Your task to perform on an android device: Search for seafood restaurants on Google Maps Image 0: 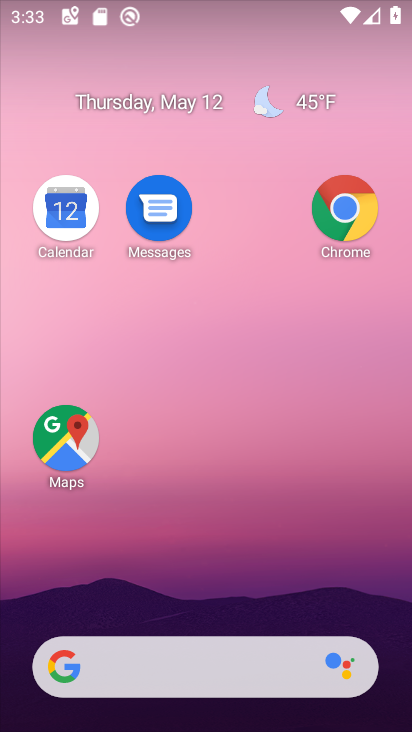
Step 0: drag from (215, 582) to (346, 20)
Your task to perform on an android device: Search for seafood restaurants on Google Maps Image 1: 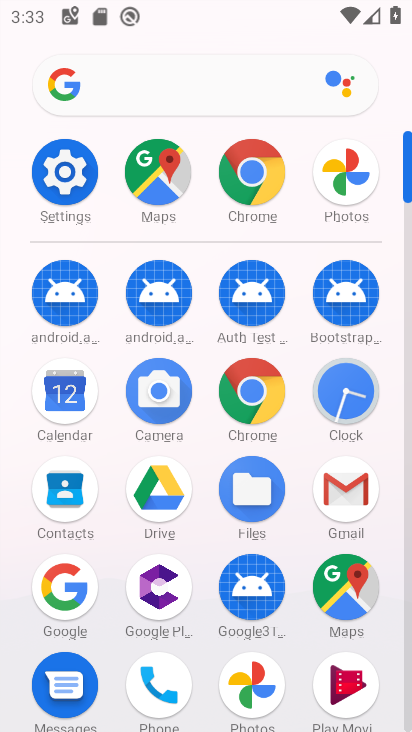
Step 1: click (358, 594)
Your task to perform on an android device: Search for seafood restaurants on Google Maps Image 2: 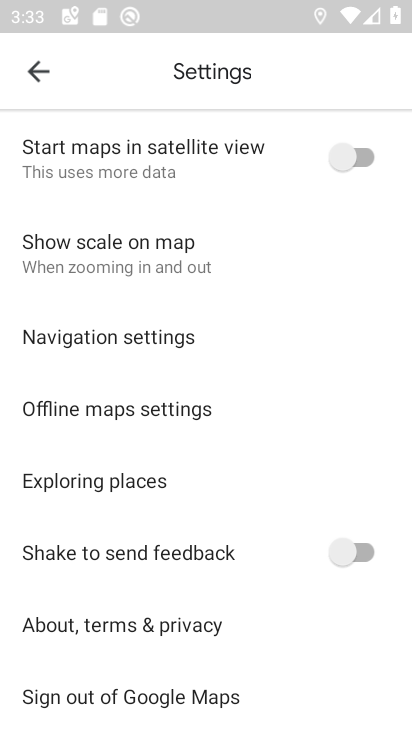
Step 2: click (42, 80)
Your task to perform on an android device: Search for seafood restaurants on Google Maps Image 3: 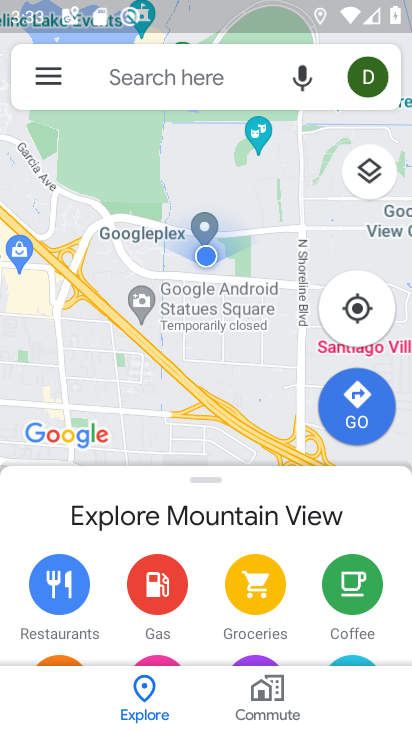
Step 3: drag from (215, 539) to (230, 109)
Your task to perform on an android device: Search for seafood restaurants on Google Maps Image 4: 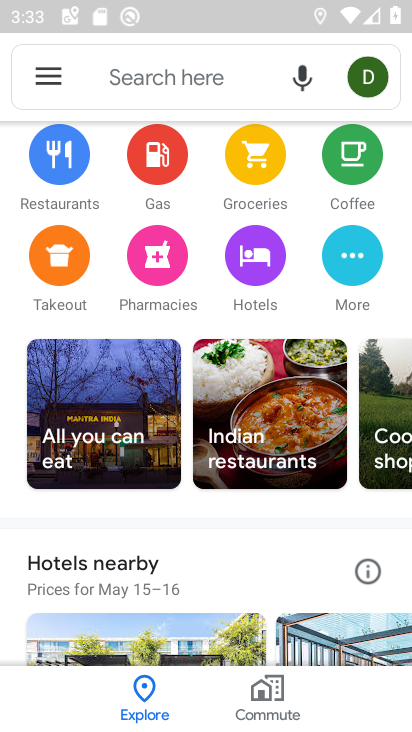
Step 4: click (125, 70)
Your task to perform on an android device: Search for seafood restaurants on Google Maps Image 5: 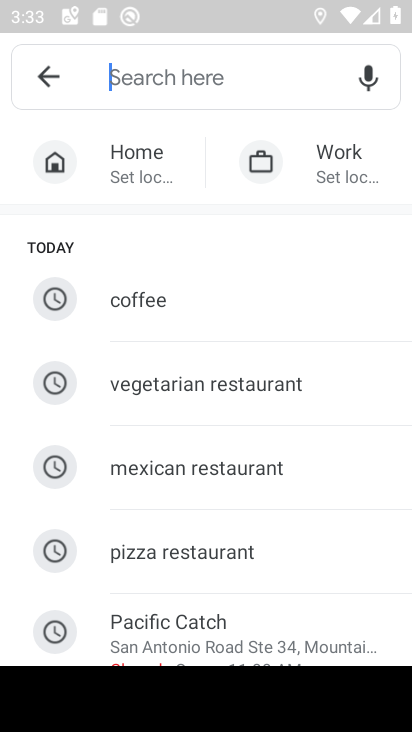
Step 5: drag from (178, 561) to (175, 193)
Your task to perform on an android device: Search for seafood restaurants on Google Maps Image 6: 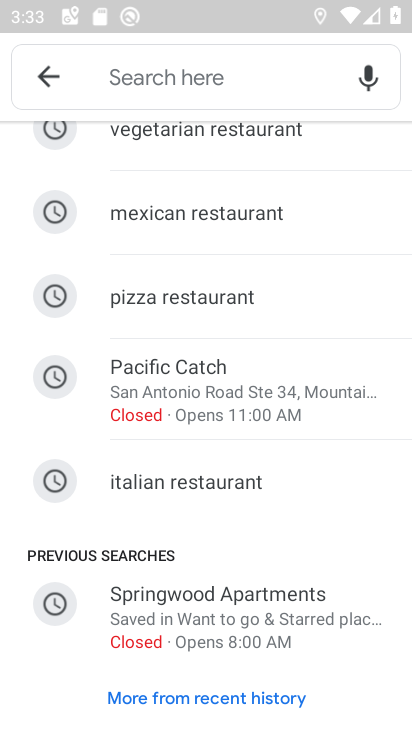
Step 6: drag from (176, 349) to (282, 723)
Your task to perform on an android device: Search for seafood restaurants on Google Maps Image 7: 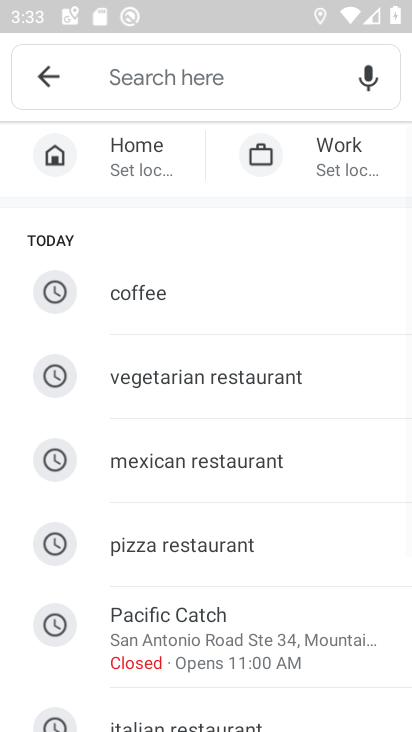
Step 7: click (149, 53)
Your task to perform on an android device: Search for seafood restaurants on Google Maps Image 8: 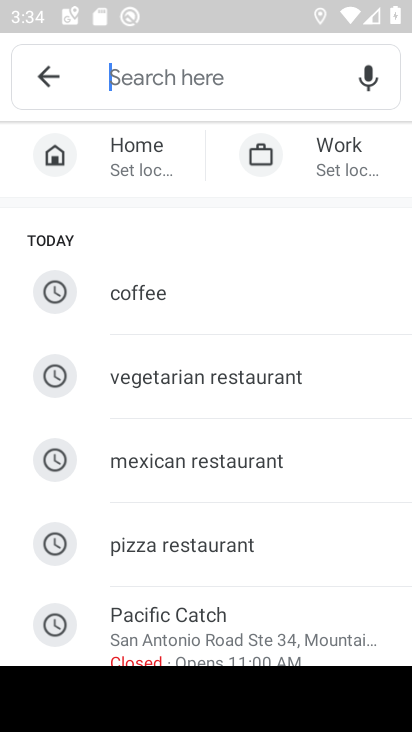
Step 8: type "seafood restaurants"
Your task to perform on an android device: Search for seafood restaurants on Google Maps Image 9: 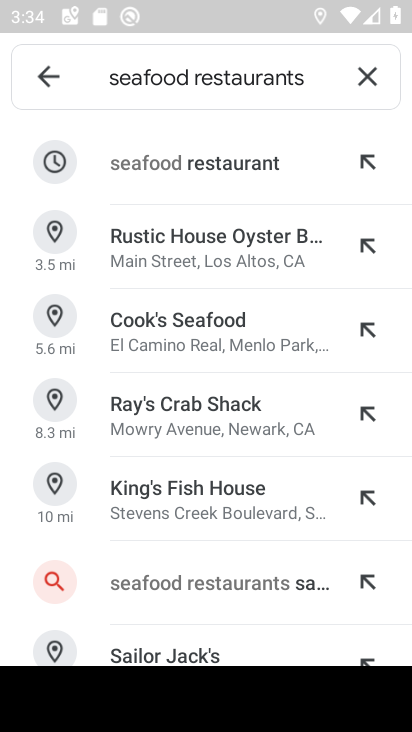
Step 9: click (179, 155)
Your task to perform on an android device: Search for seafood restaurants on Google Maps Image 10: 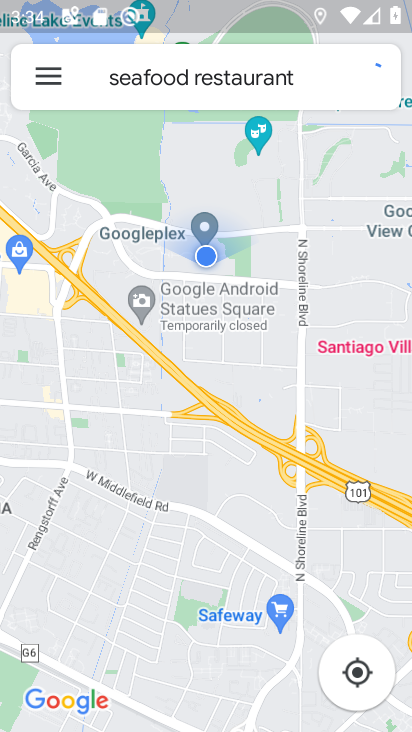
Step 10: task complete